Your task to perform on an android device: Clear the shopping cart on amazon.com. Search for "apple airpods" on amazon.com, select the first entry, and add it to the cart. Image 0: 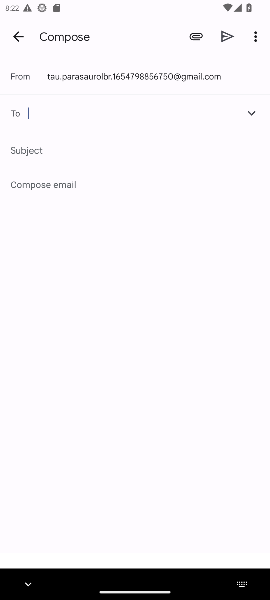
Step 0: press back button
Your task to perform on an android device: Clear the shopping cart on amazon.com. Search for "apple airpods" on amazon.com, select the first entry, and add it to the cart. Image 1: 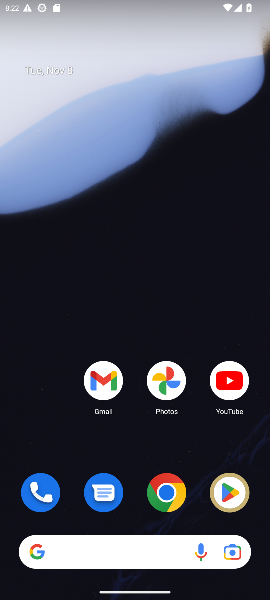
Step 1: click (175, 491)
Your task to perform on an android device: Clear the shopping cart on amazon.com. Search for "apple airpods" on amazon.com, select the first entry, and add it to the cart. Image 2: 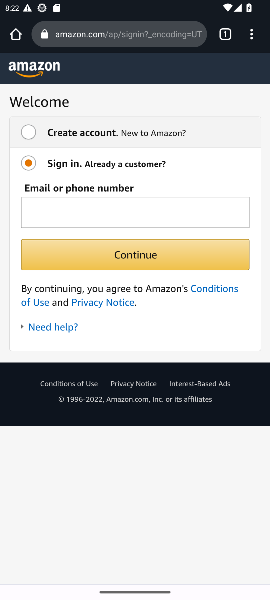
Step 2: press back button
Your task to perform on an android device: Clear the shopping cart on amazon.com. Search for "apple airpods" on amazon.com, select the first entry, and add it to the cart. Image 3: 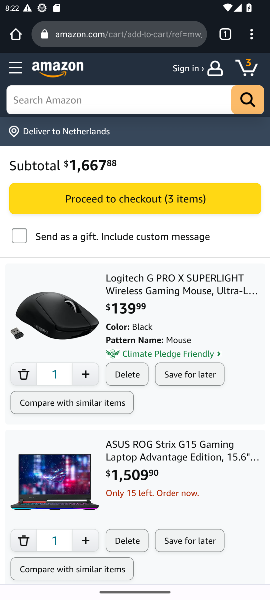
Step 3: click (247, 65)
Your task to perform on an android device: Clear the shopping cart on amazon.com. Search for "apple airpods" on amazon.com, select the first entry, and add it to the cart. Image 4: 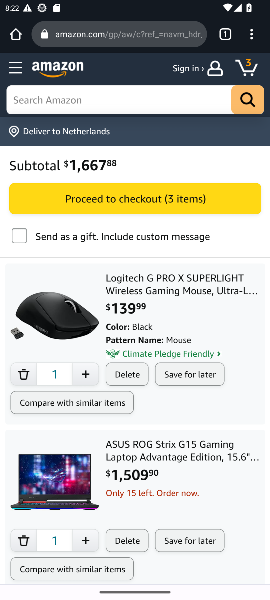
Step 4: click (132, 376)
Your task to perform on an android device: Clear the shopping cart on amazon.com. Search for "apple airpods" on amazon.com, select the first entry, and add it to the cart. Image 5: 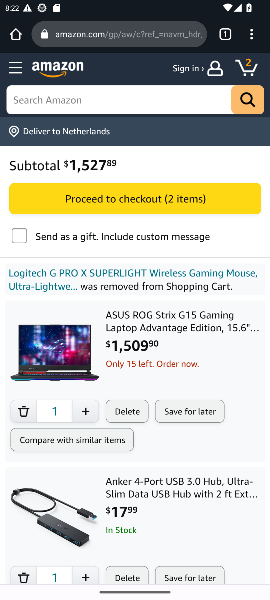
Step 5: click (121, 411)
Your task to perform on an android device: Clear the shopping cart on amazon.com. Search for "apple airpods" on amazon.com, select the first entry, and add it to the cart. Image 6: 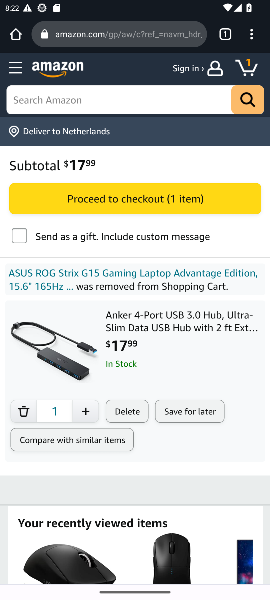
Step 6: click (121, 411)
Your task to perform on an android device: Clear the shopping cart on amazon.com. Search for "apple airpods" on amazon.com, select the first entry, and add it to the cart. Image 7: 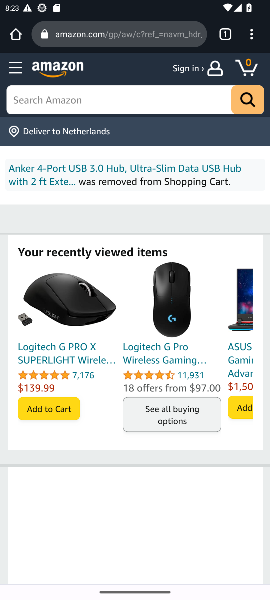
Step 7: click (157, 103)
Your task to perform on an android device: Clear the shopping cart on amazon.com. Search for "apple airpods" on amazon.com, select the first entry, and add it to the cart. Image 8: 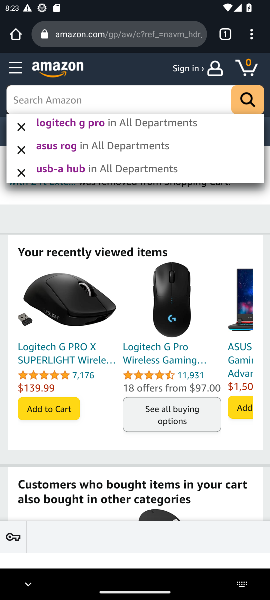
Step 8: type "apple airpods"
Your task to perform on an android device: Clear the shopping cart on amazon.com. Search for "apple airpods" on amazon.com, select the first entry, and add it to the cart. Image 9: 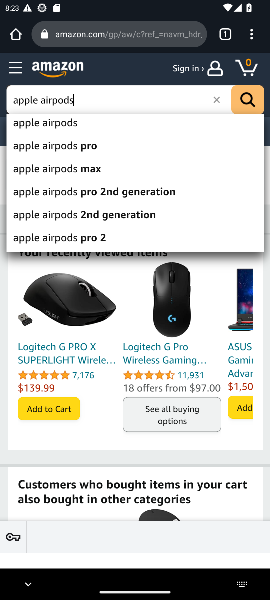
Step 9: click (70, 123)
Your task to perform on an android device: Clear the shopping cart on amazon.com. Search for "apple airpods" on amazon.com, select the first entry, and add it to the cart. Image 10: 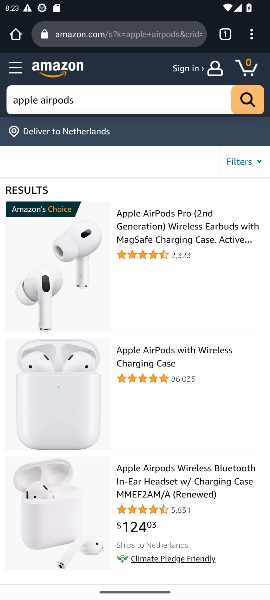
Step 10: click (59, 274)
Your task to perform on an android device: Clear the shopping cart on amazon.com. Search for "apple airpods" on amazon.com, select the first entry, and add it to the cart. Image 11: 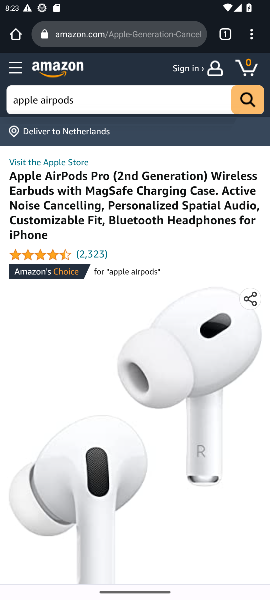
Step 11: task complete